Your task to perform on an android device: empty trash in google photos Image 0: 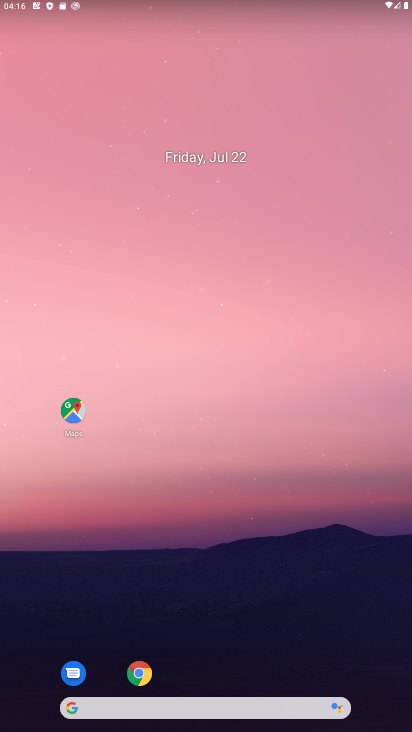
Step 0: press home button
Your task to perform on an android device: empty trash in google photos Image 1: 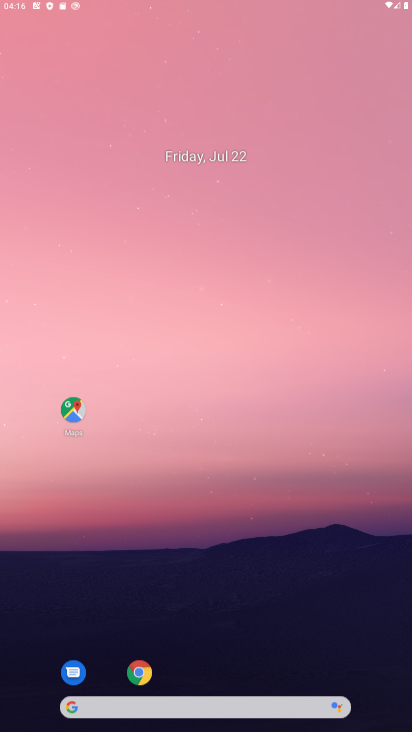
Step 1: drag from (219, 679) to (252, 48)
Your task to perform on an android device: empty trash in google photos Image 2: 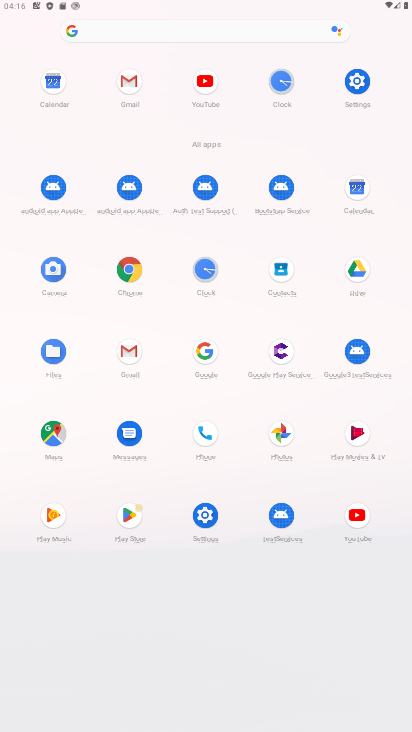
Step 2: click (279, 432)
Your task to perform on an android device: empty trash in google photos Image 3: 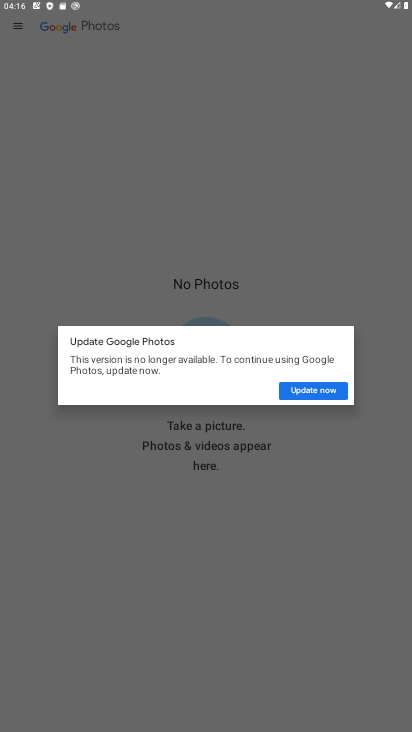
Step 3: click (313, 387)
Your task to perform on an android device: empty trash in google photos Image 4: 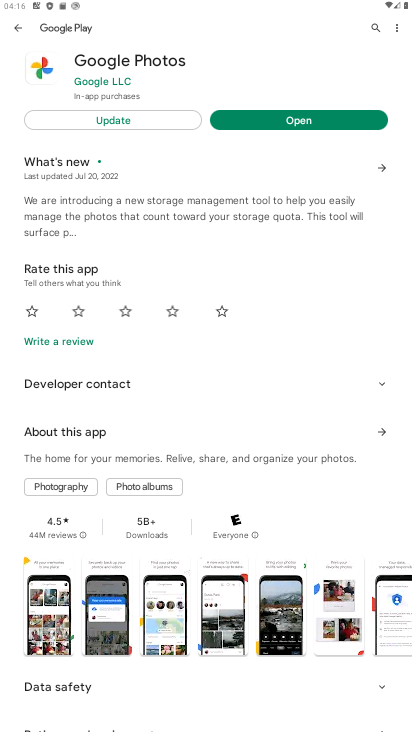
Step 4: click (121, 118)
Your task to perform on an android device: empty trash in google photos Image 5: 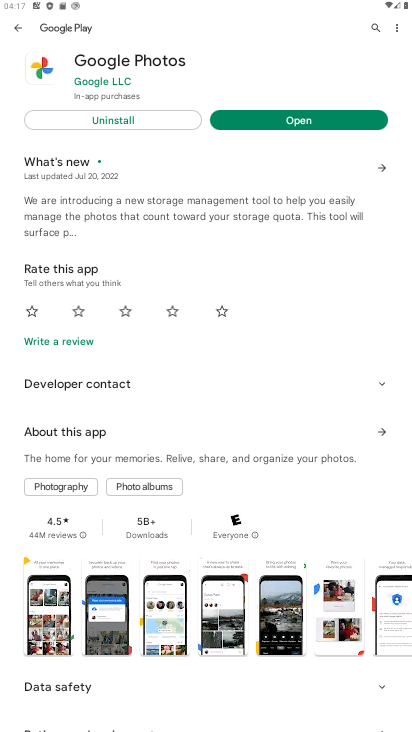
Step 5: click (294, 113)
Your task to perform on an android device: empty trash in google photos Image 6: 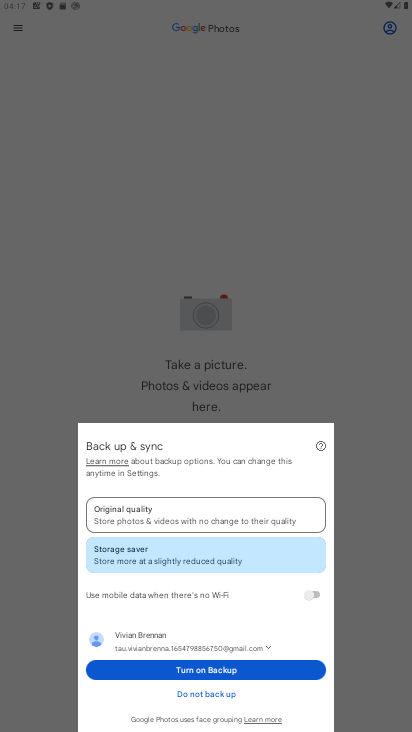
Step 6: click (207, 667)
Your task to perform on an android device: empty trash in google photos Image 7: 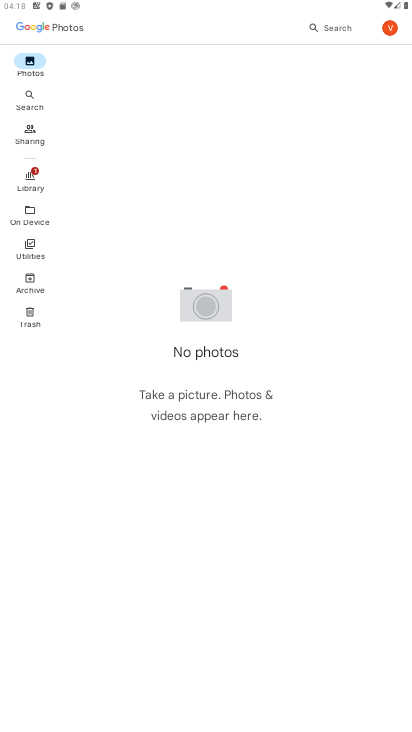
Step 7: click (33, 308)
Your task to perform on an android device: empty trash in google photos Image 8: 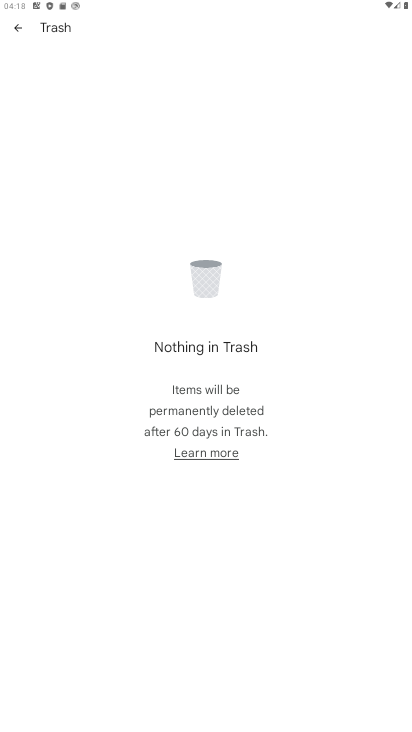
Step 8: task complete